Your task to perform on an android device: make emails show in primary in the gmail app Image 0: 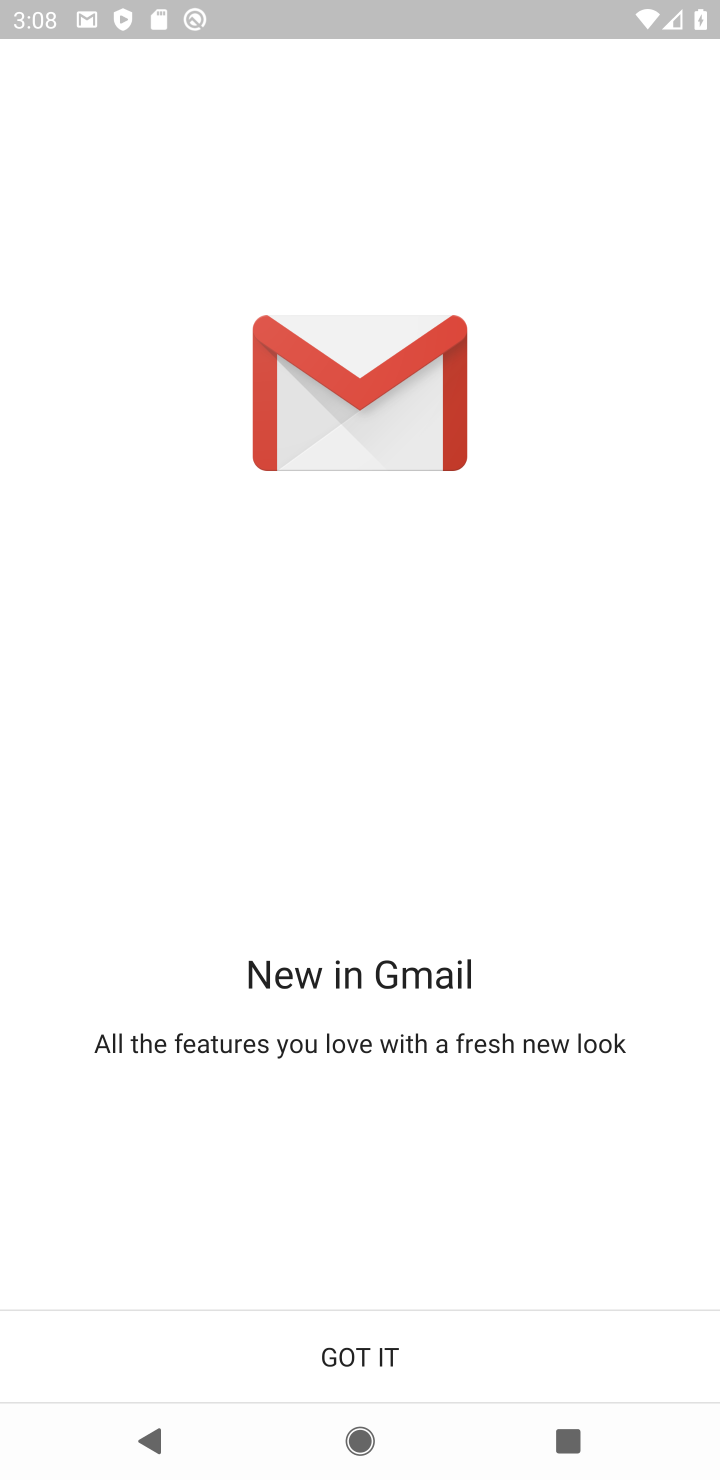
Step 0: click (368, 1362)
Your task to perform on an android device: make emails show in primary in the gmail app Image 1: 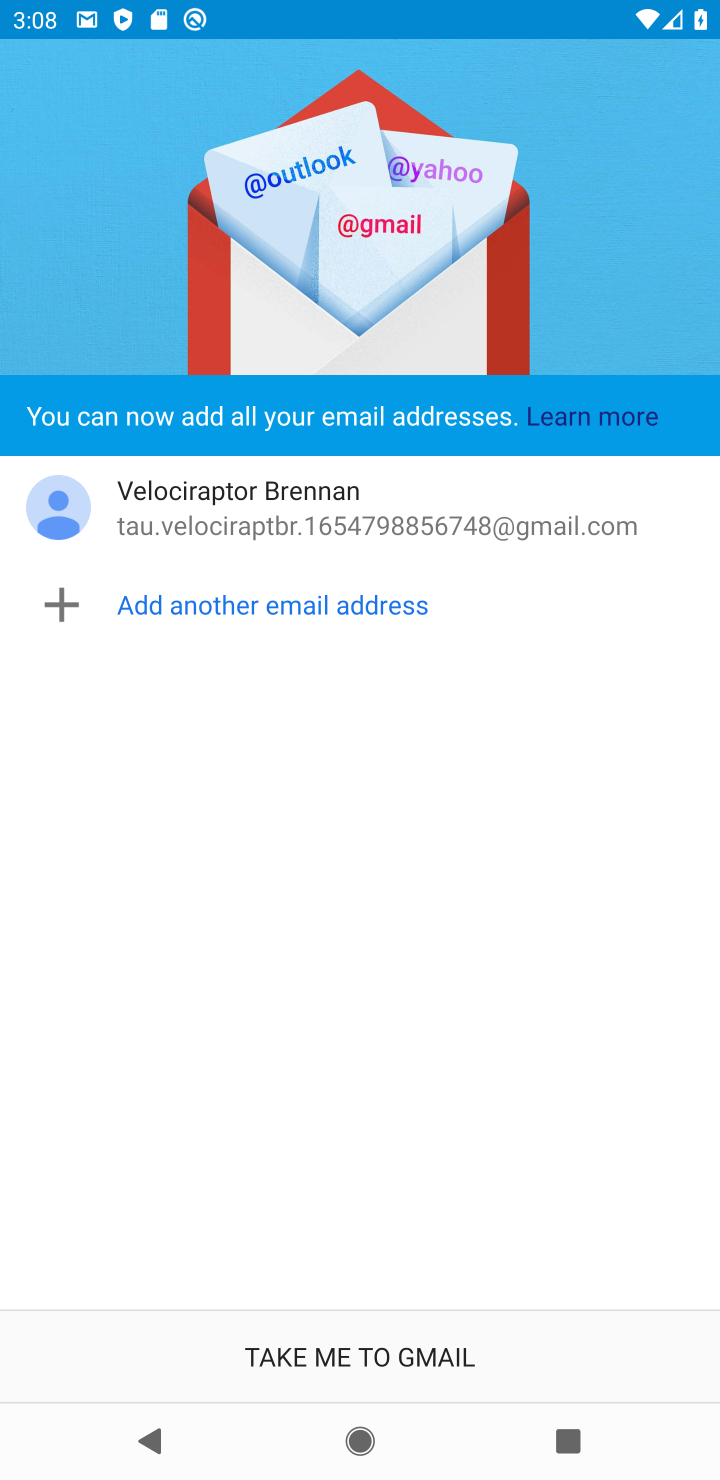
Step 1: click (368, 1362)
Your task to perform on an android device: make emails show in primary in the gmail app Image 2: 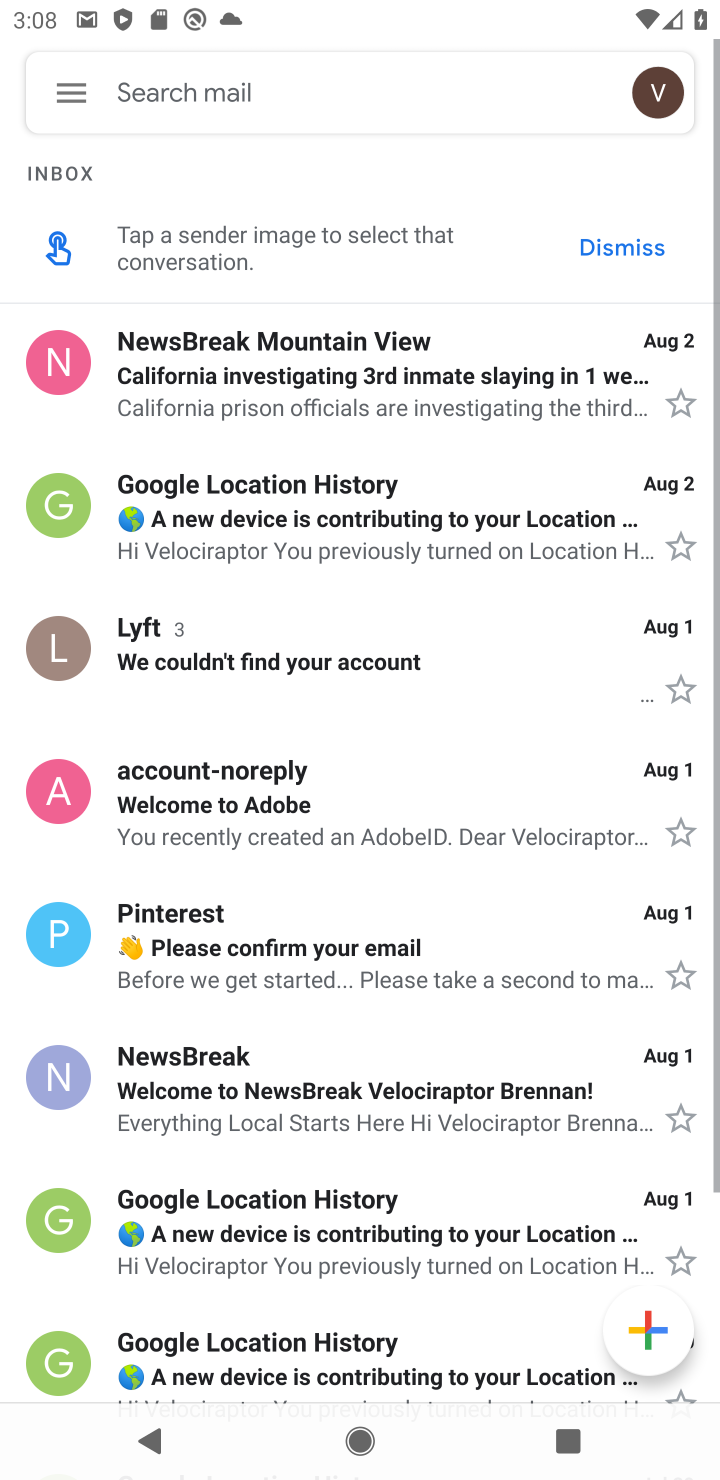
Step 2: click (59, 99)
Your task to perform on an android device: make emails show in primary in the gmail app Image 3: 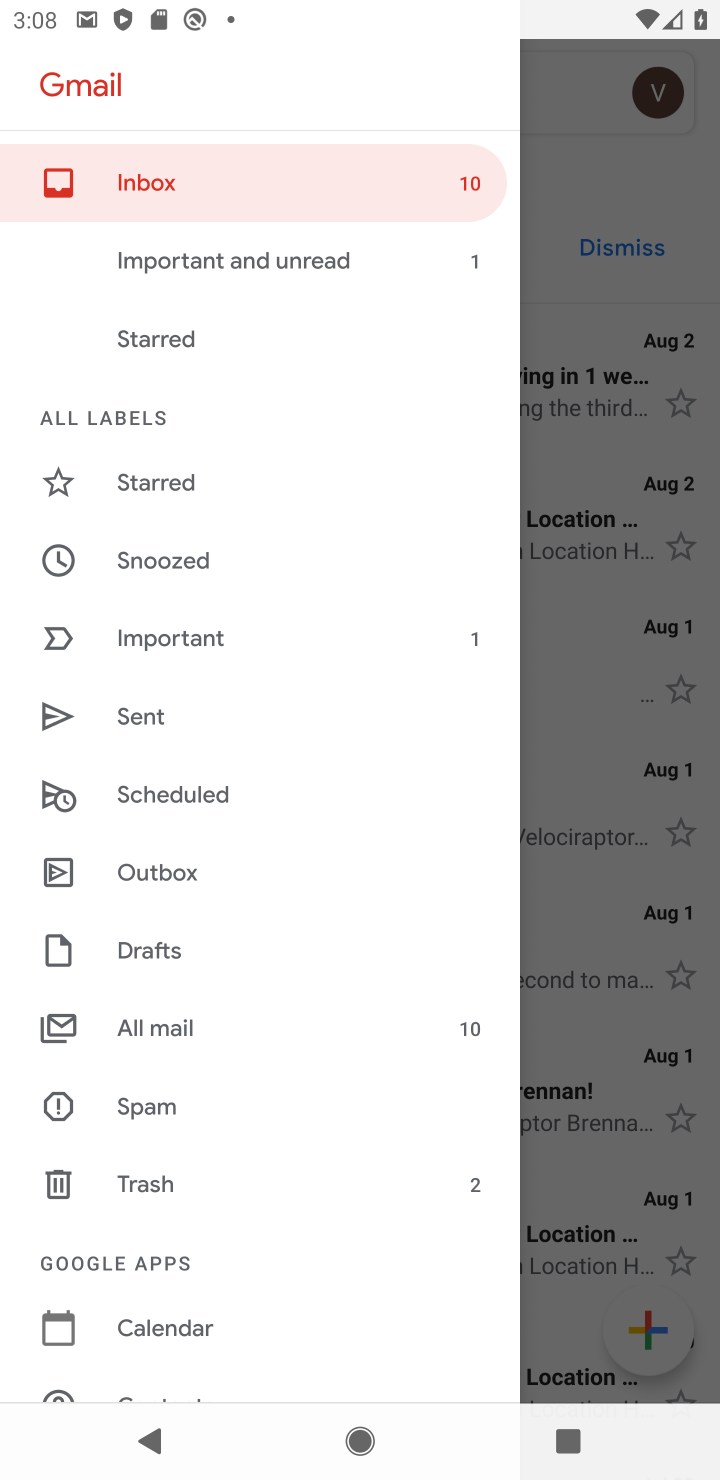
Step 3: drag from (173, 1164) to (171, 775)
Your task to perform on an android device: make emails show in primary in the gmail app Image 4: 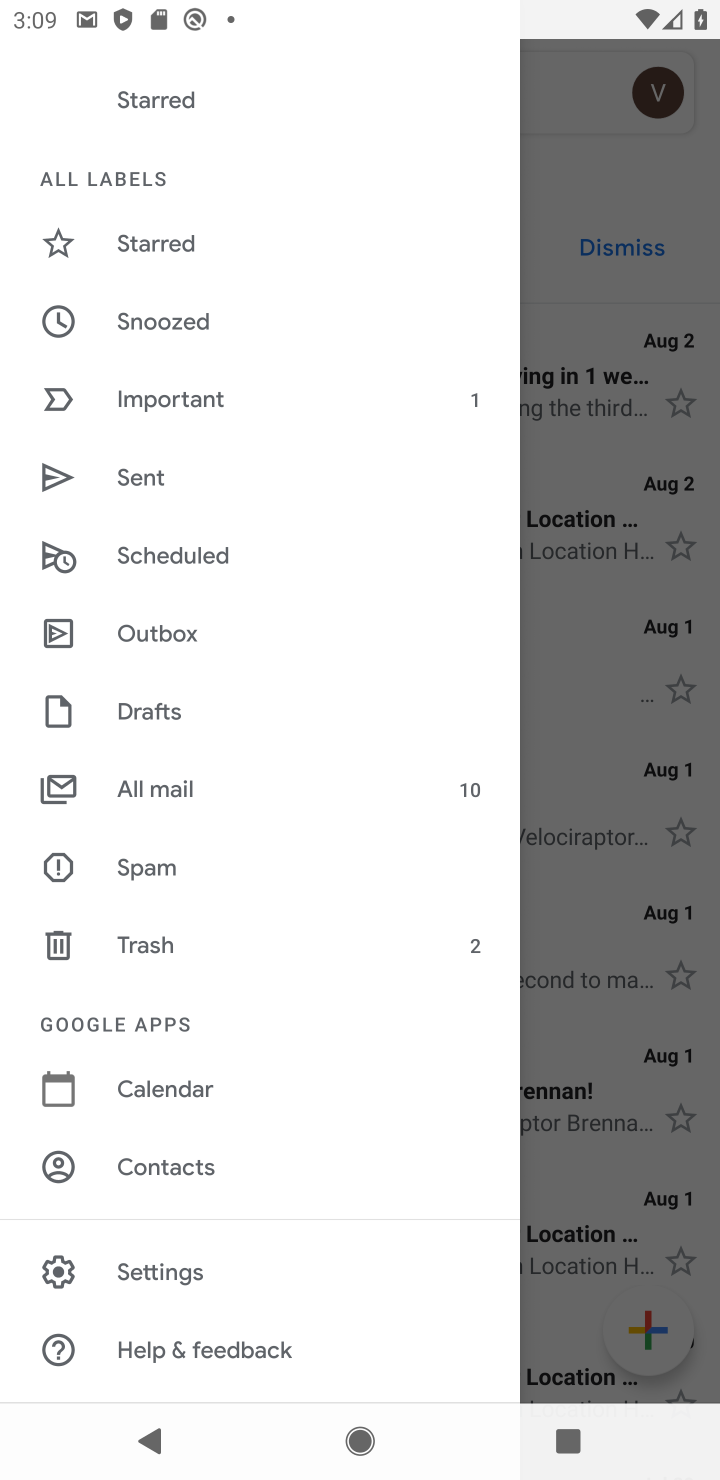
Step 4: click (148, 1279)
Your task to perform on an android device: make emails show in primary in the gmail app Image 5: 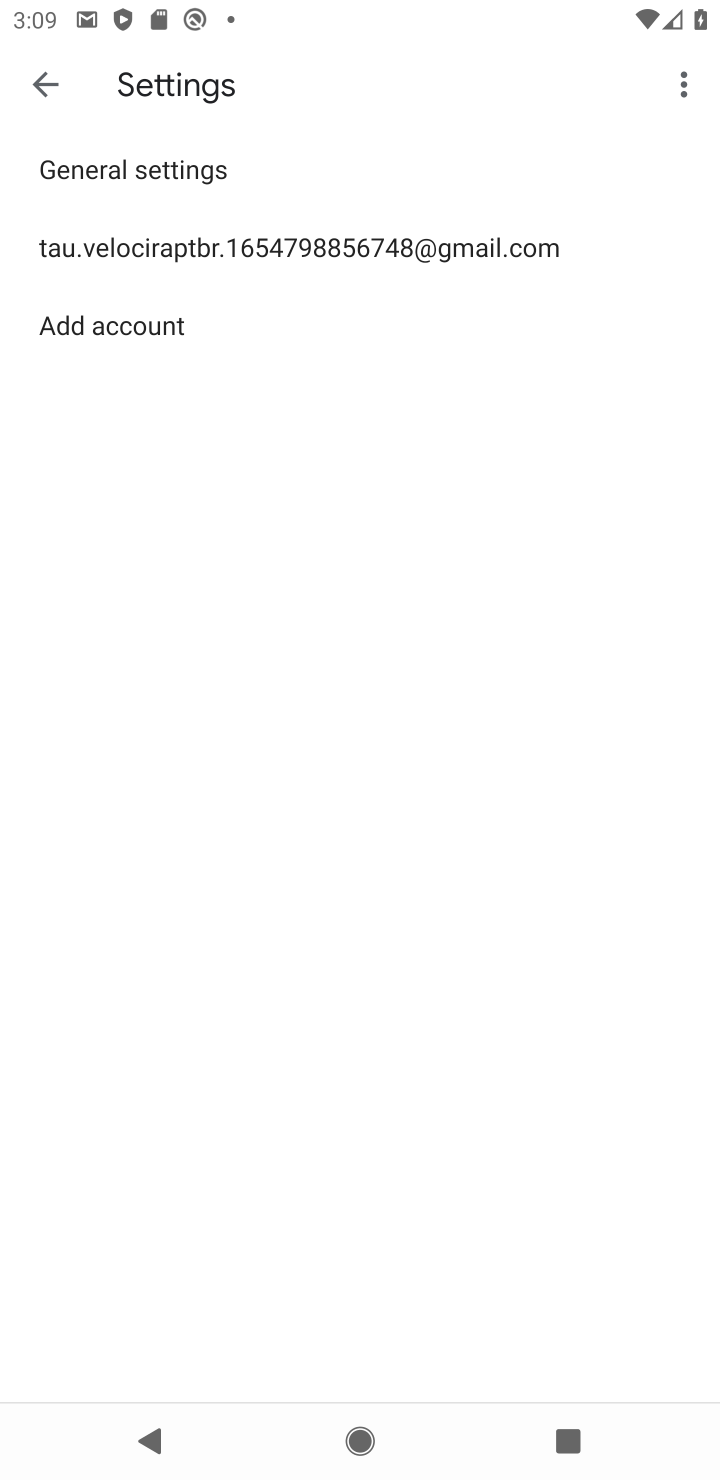
Step 5: click (426, 254)
Your task to perform on an android device: make emails show in primary in the gmail app Image 6: 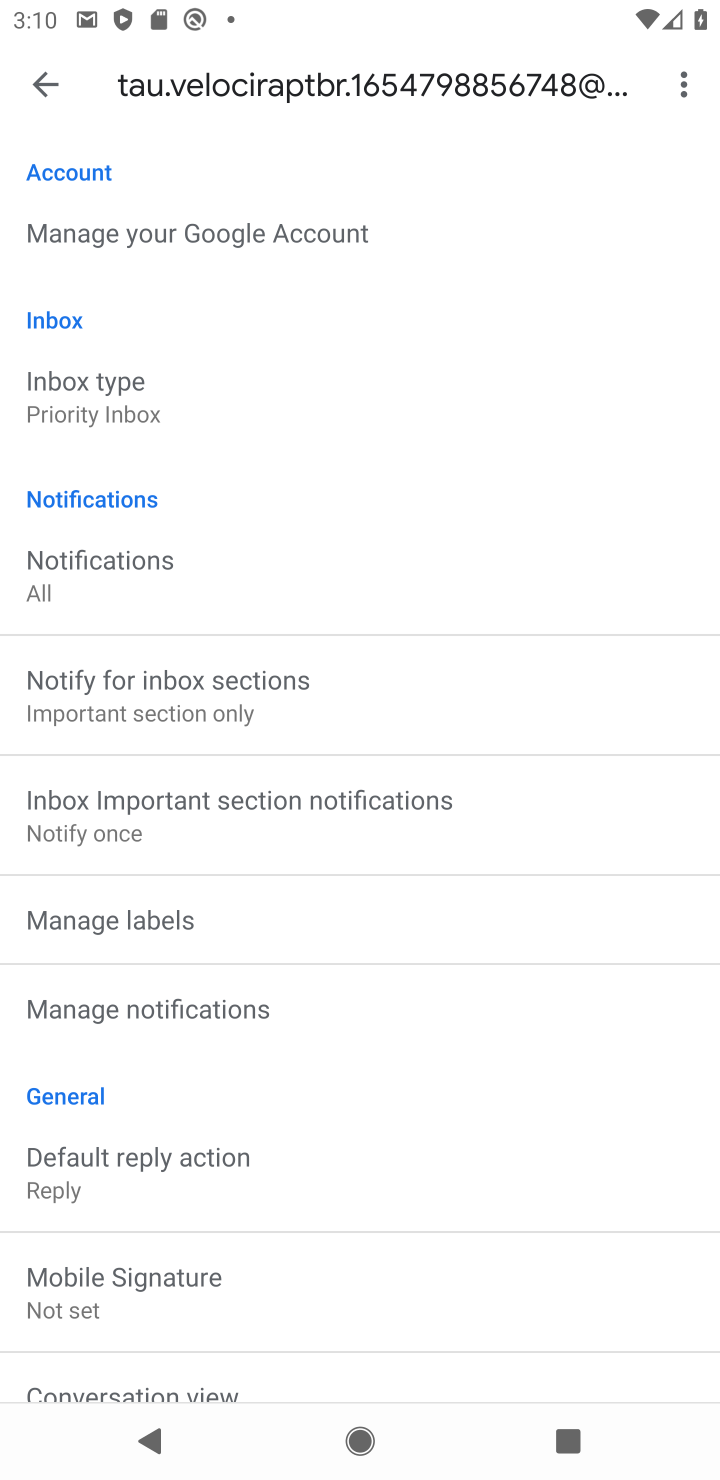
Step 6: task complete